Your task to perform on an android device: open the mobile data screen to see how much data has been used Image 0: 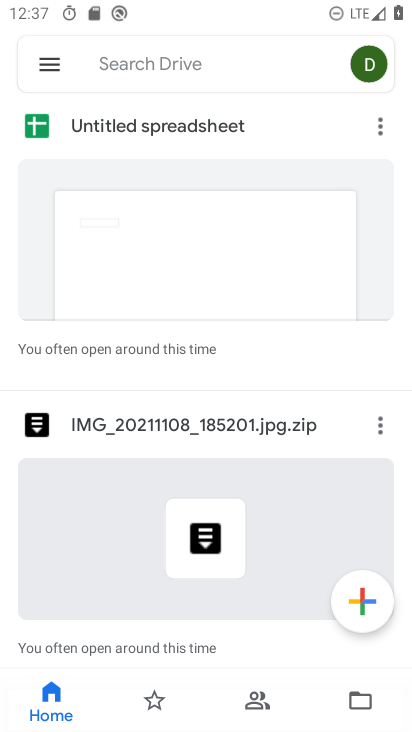
Step 0: press home button
Your task to perform on an android device: open the mobile data screen to see how much data has been used Image 1: 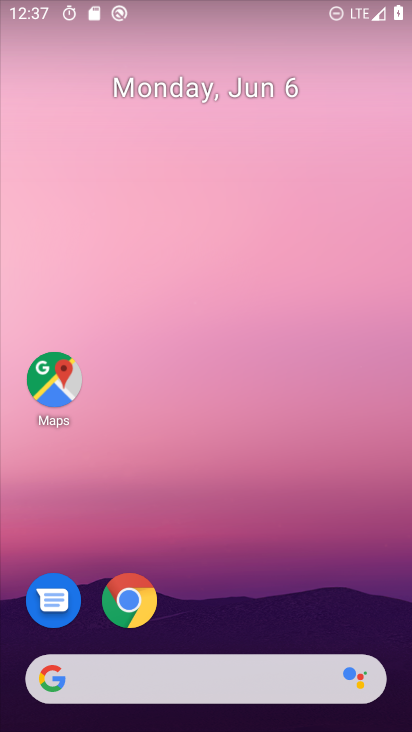
Step 1: drag from (222, 563) to (214, 129)
Your task to perform on an android device: open the mobile data screen to see how much data has been used Image 2: 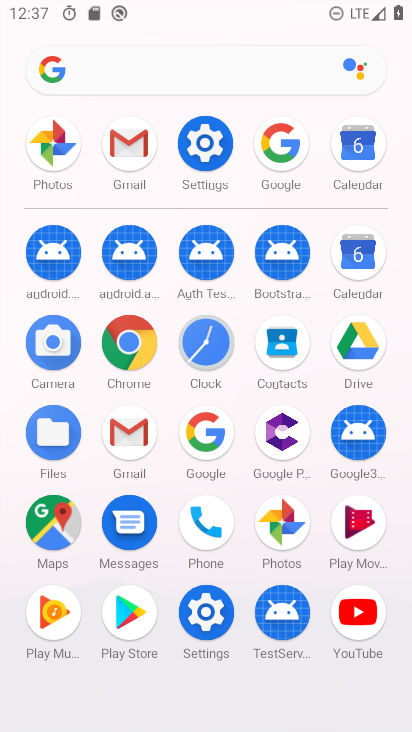
Step 2: click (210, 146)
Your task to perform on an android device: open the mobile data screen to see how much data has been used Image 3: 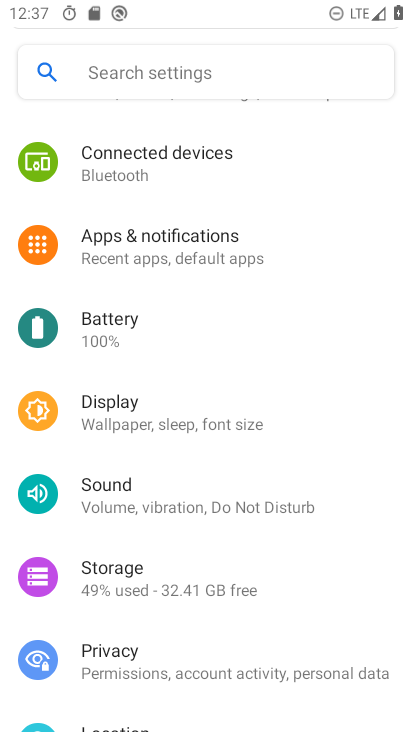
Step 3: drag from (208, 235) to (241, 526)
Your task to perform on an android device: open the mobile data screen to see how much data has been used Image 4: 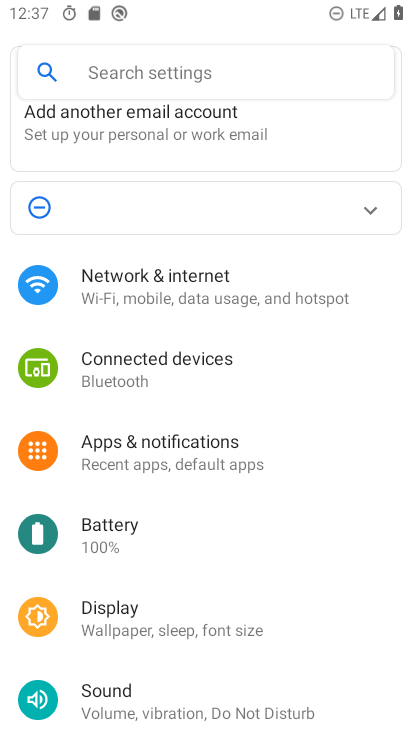
Step 4: click (219, 294)
Your task to perform on an android device: open the mobile data screen to see how much data has been used Image 5: 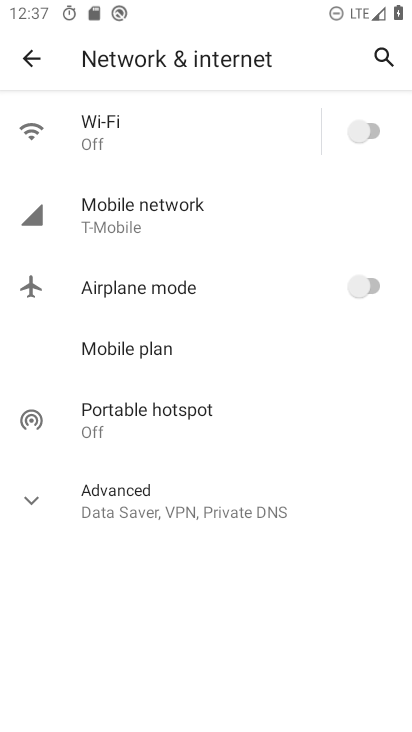
Step 5: click (163, 223)
Your task to perform on an android device: open the mobile data screen to see how much data has been used Image 6: 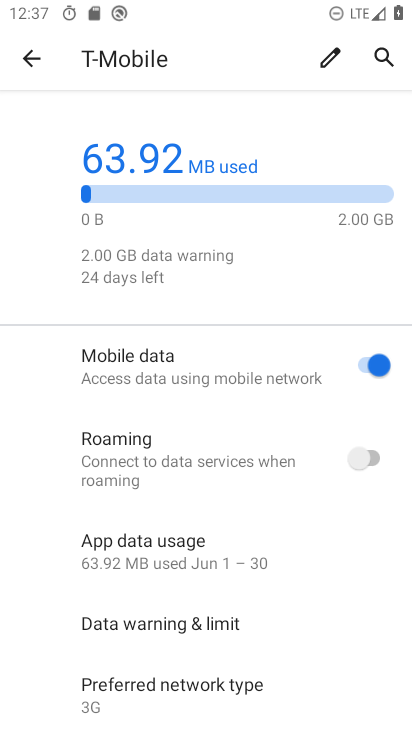
Step 6: drag from (273, 484) to (294, 275)
Your task to perform on an android device: open the mobile data screen to see how much data has been used Image 7: 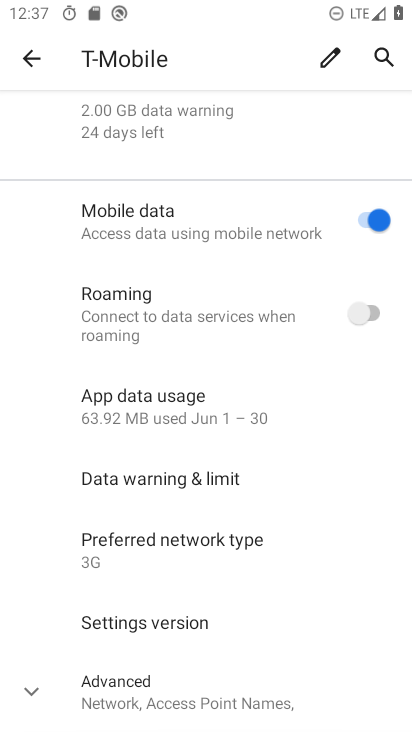
Step 7: click (175, 395)
Your task to perform on an android device: open the mobile data screen to see how much data has been used Image 8: 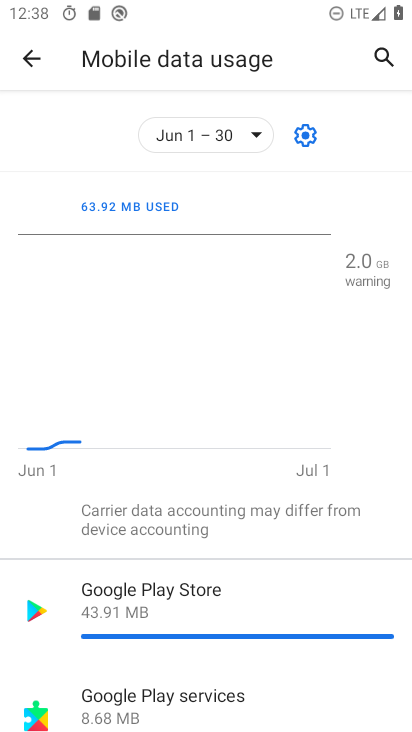
Step 8: task complete